Your task to perform on an android device: turn off data saver in the chrome app Image 0: 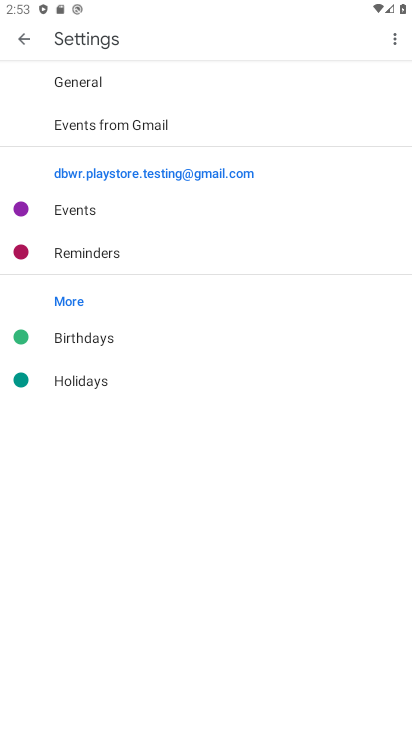
Step 0: press home button
Your task to perform on an android device: turn off data saver in the chrome app Image 1: 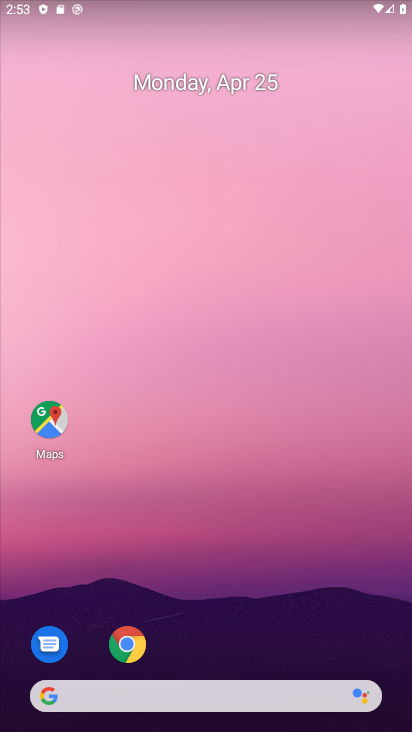
Step 1: click (130, 647)
Your task to perform on an android device: turn off data saver in the chrome app Image 2: 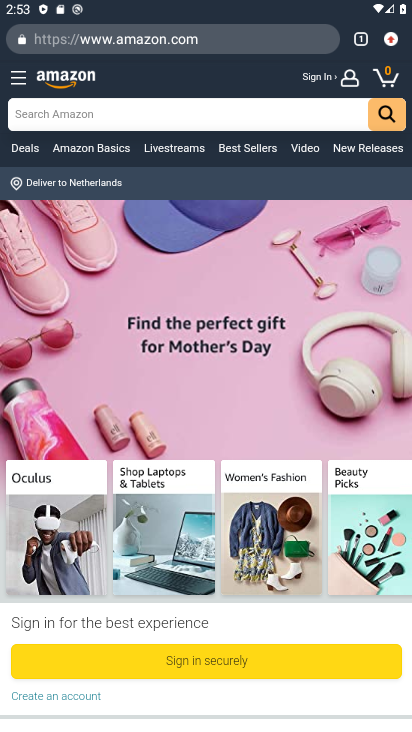
Step 2: click (390, 39)
Your task to perform on an android device: turn off data saver in the chrome app Image 3: 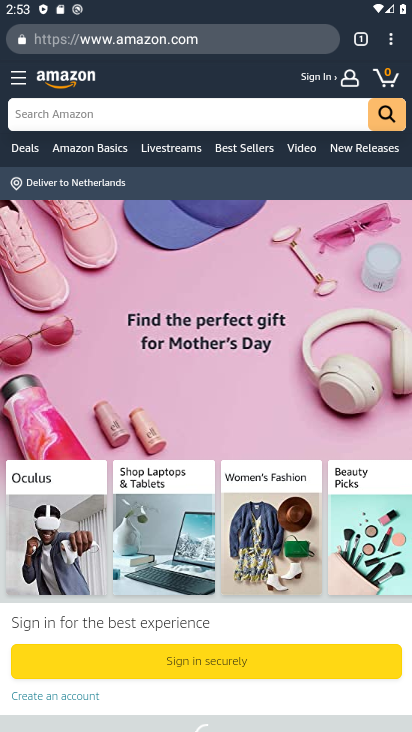
Step 3: click (396, 39)
Your task to perform on an android device: turn off data saver in the chrome app Image 4: 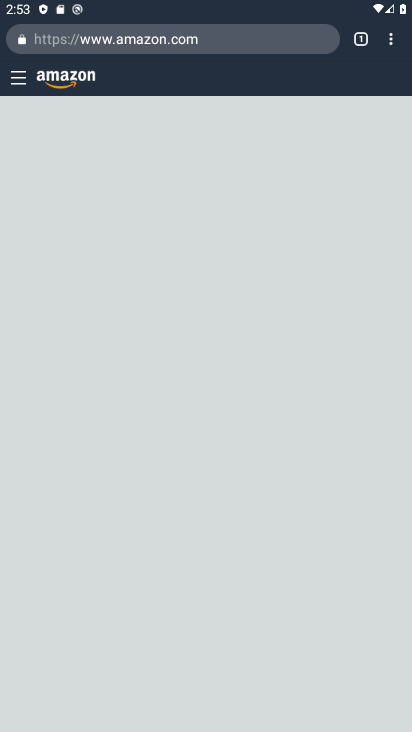
Step 4: drag from (396, 39) to (299, 509)
Your task to perform on an android device: turn off data saver in the chrome app Image 5: 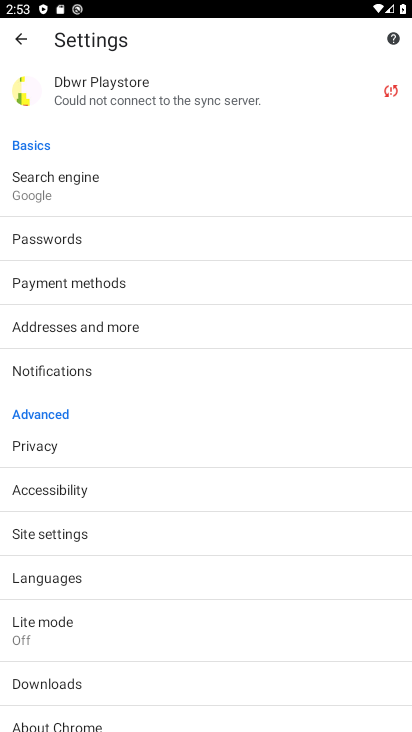
Step 5: click (62, 633)
Your task to perform on an android device: turn off data saver in the chrome app Image 6: 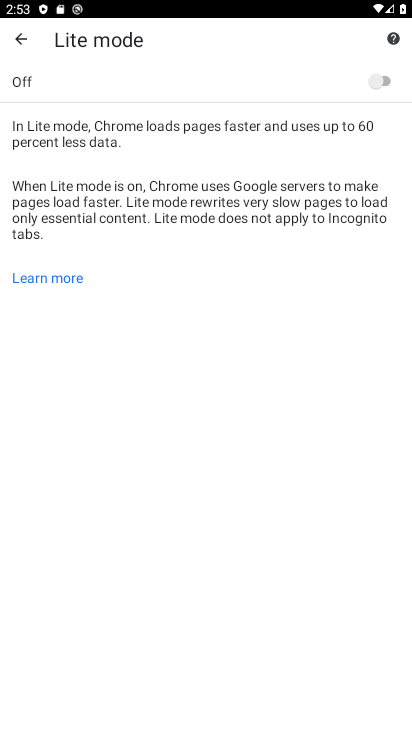
Step 6: task complete